Your task to perform on an android device: install app "File Manager" Image 0: 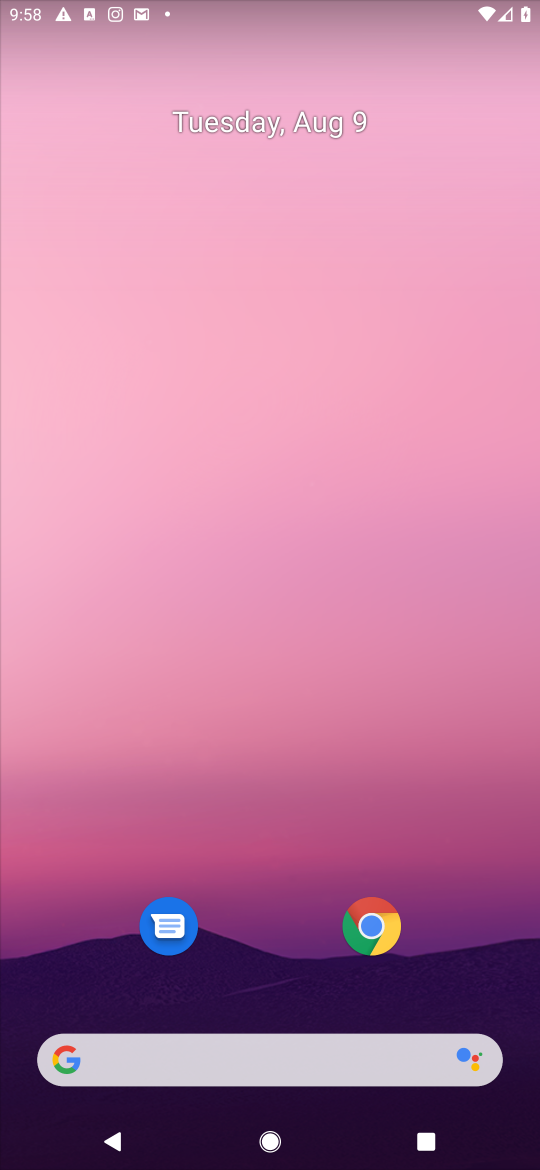
Step 0: drag from (216, 1032) to (292, 420)
Your task to perform on an android device: install app "File Manager" Image 1: 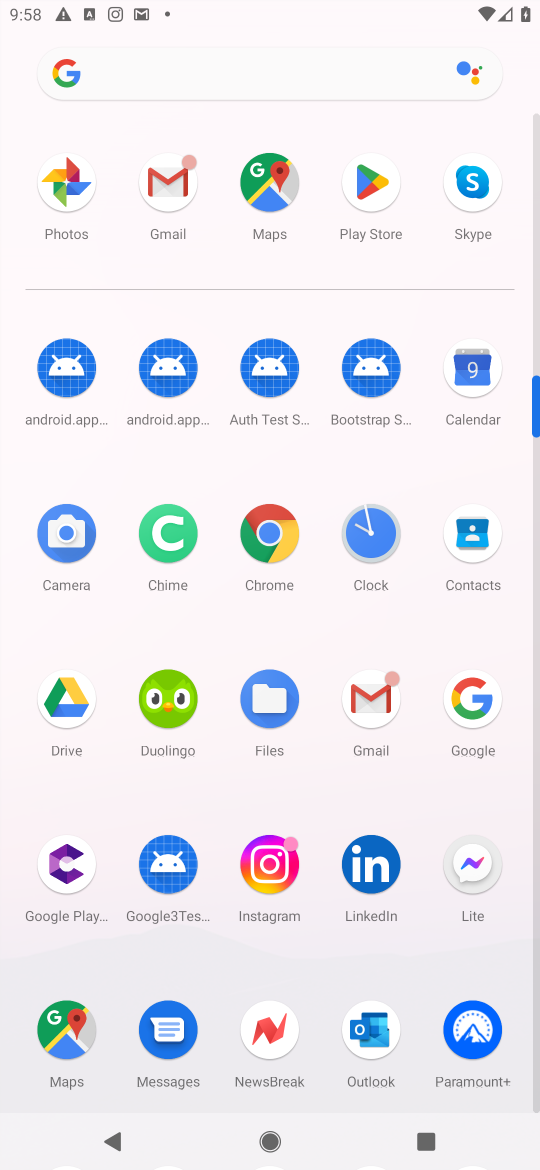
Step 1: click (372, 204)
Your task to perform on an android device: install app "File Manager" Image 2: 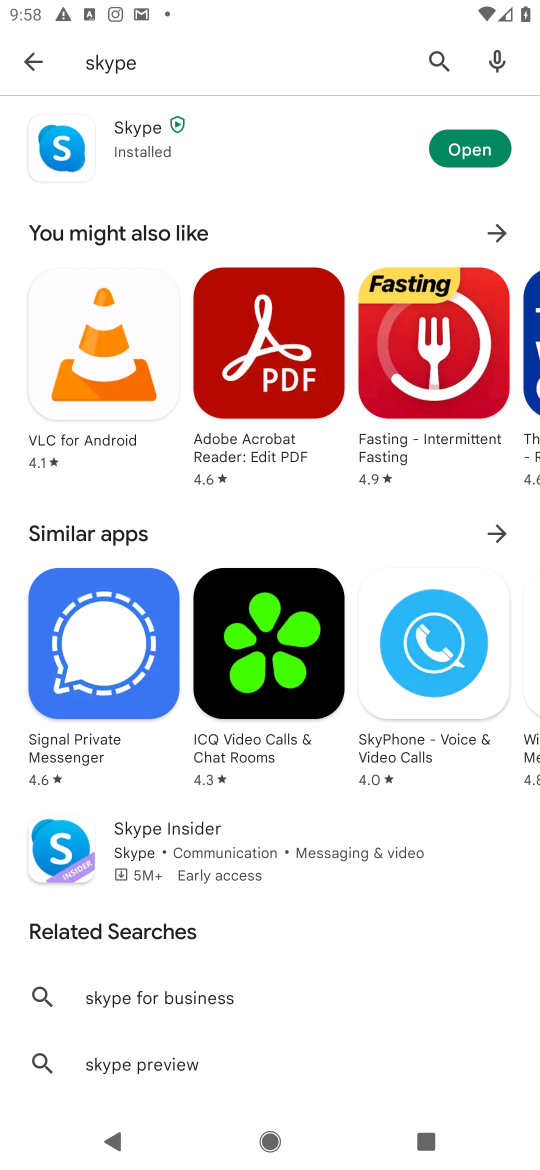
Step 2: click (155, 64)
Your task to perform on an android device: install app "File Manager" Image 3: 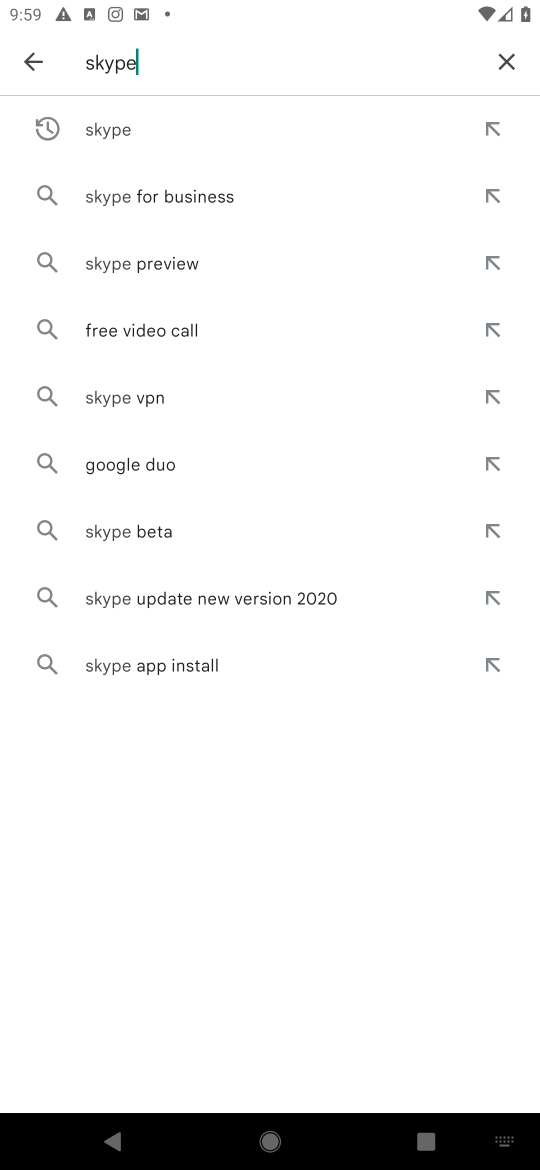
Step 3: click (521, 52)
Your task to perform on an android device: install app "File Manager" Image 4: 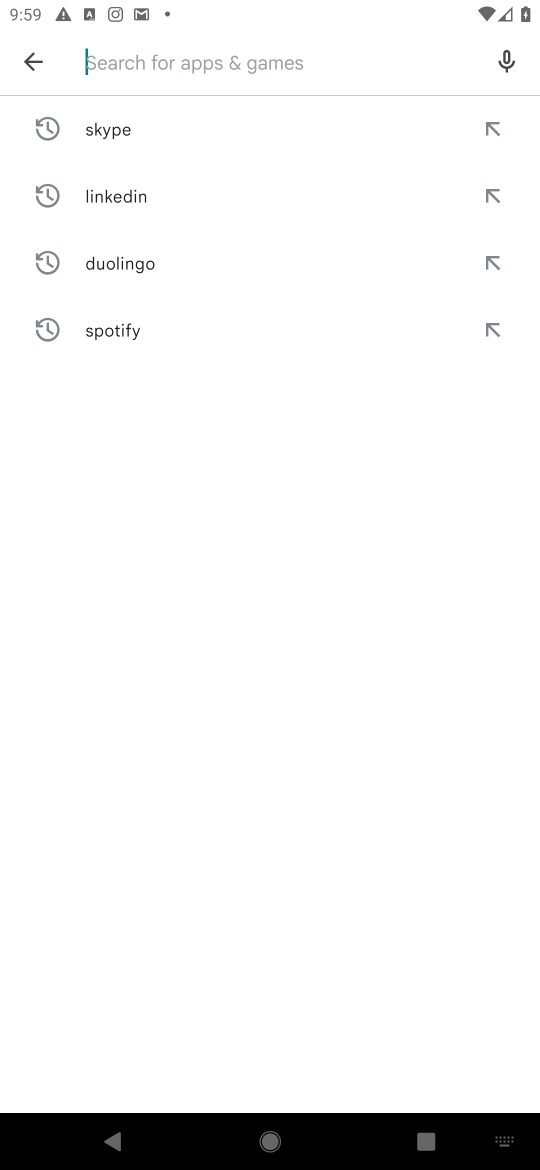
Step 4: type "file manager"
Your task to perform on an android device: install app "File Manager" Image 5: 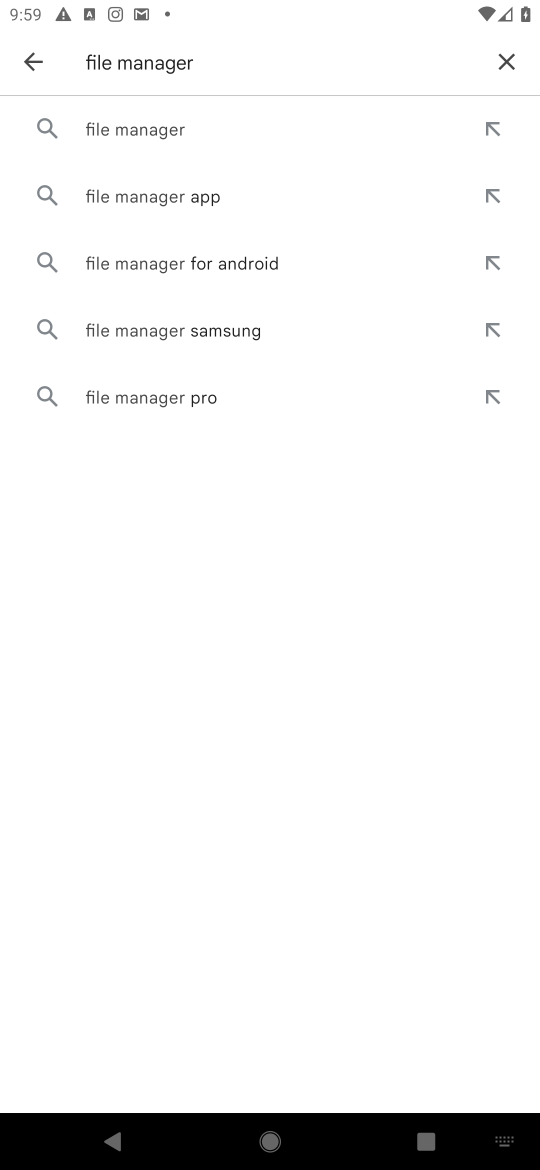
Step 5: click (153, 148)
Your task to perform on an android device: install app "File Manager" Image 6: 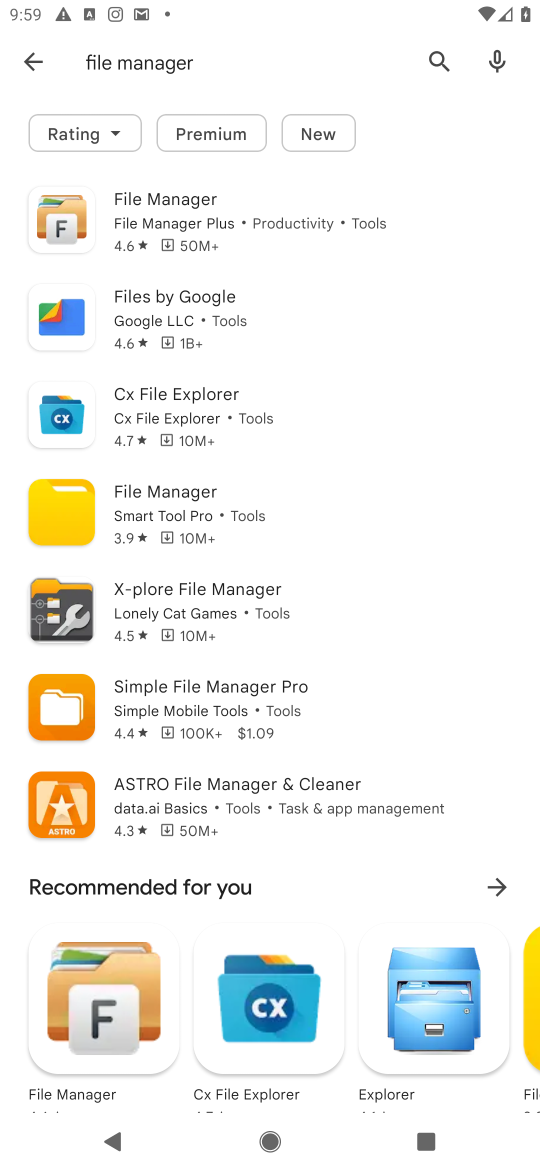
Step 6: click (217, 243)
Your task to perform on an android device: install app "File Manager" Image 7: 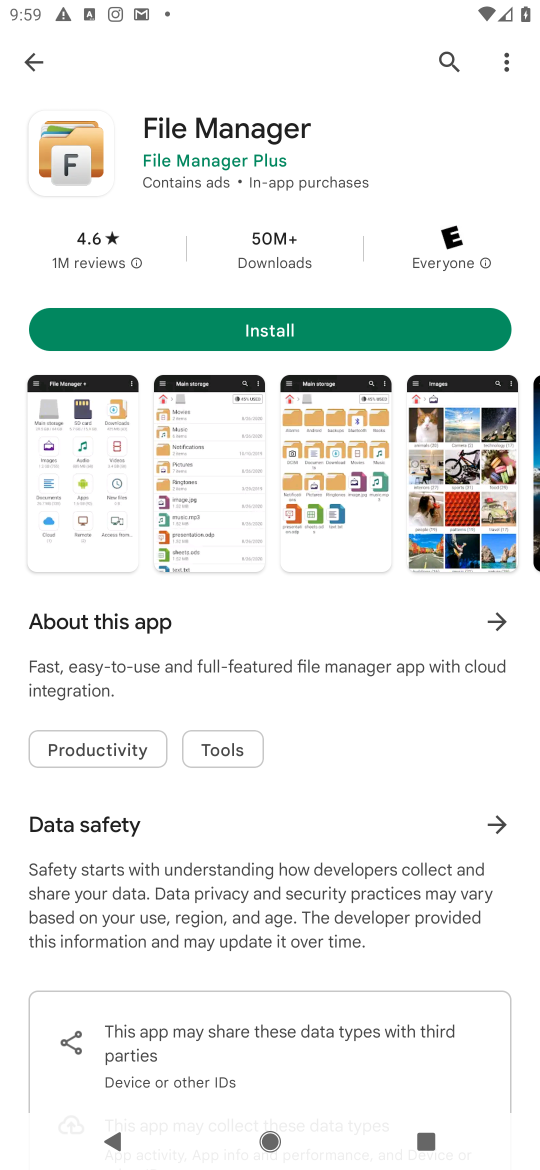
Step 7: click (264, 328)
Your task to perform on an android device: install app "File Manager" Image 8: 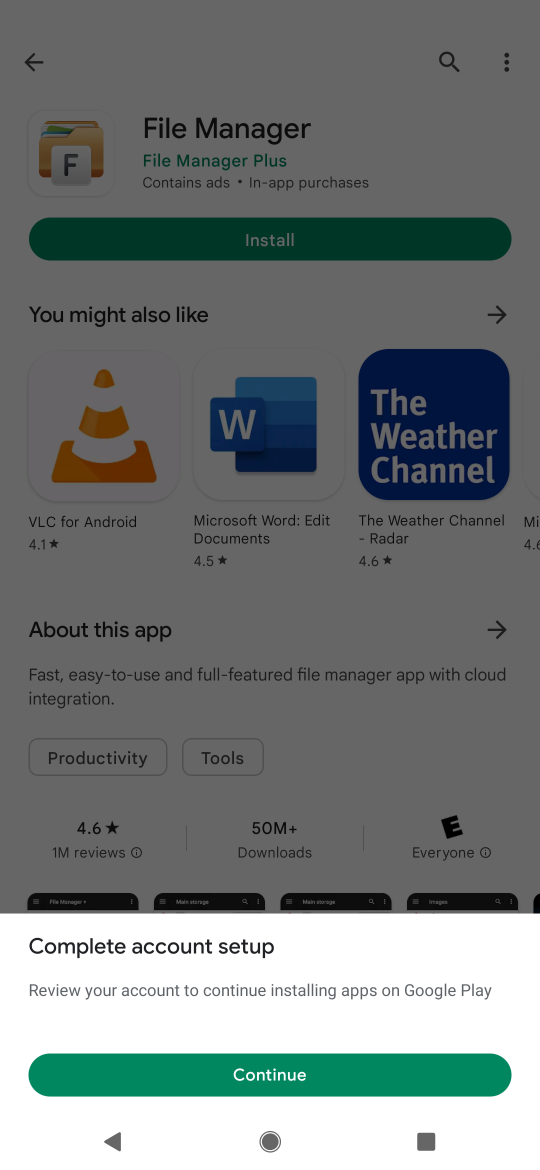
Step 8: click (251, 1080)
Your task to perform on an android device: install app "File Manager" Image 9: 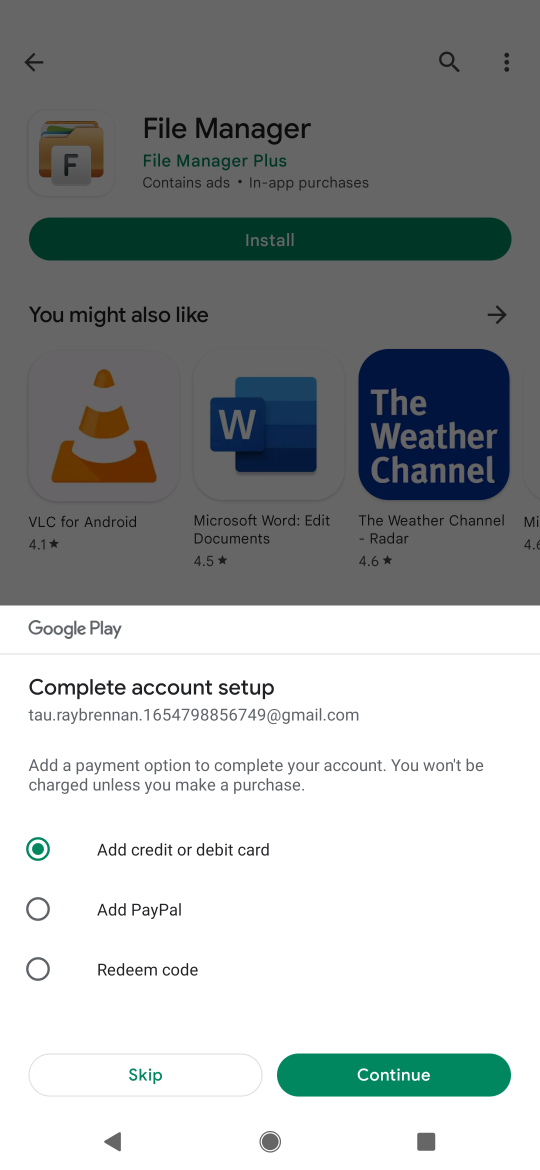
Step 9: click (132, 1080)
Your task to perform on an android device: install app "File Manager" Image 10: 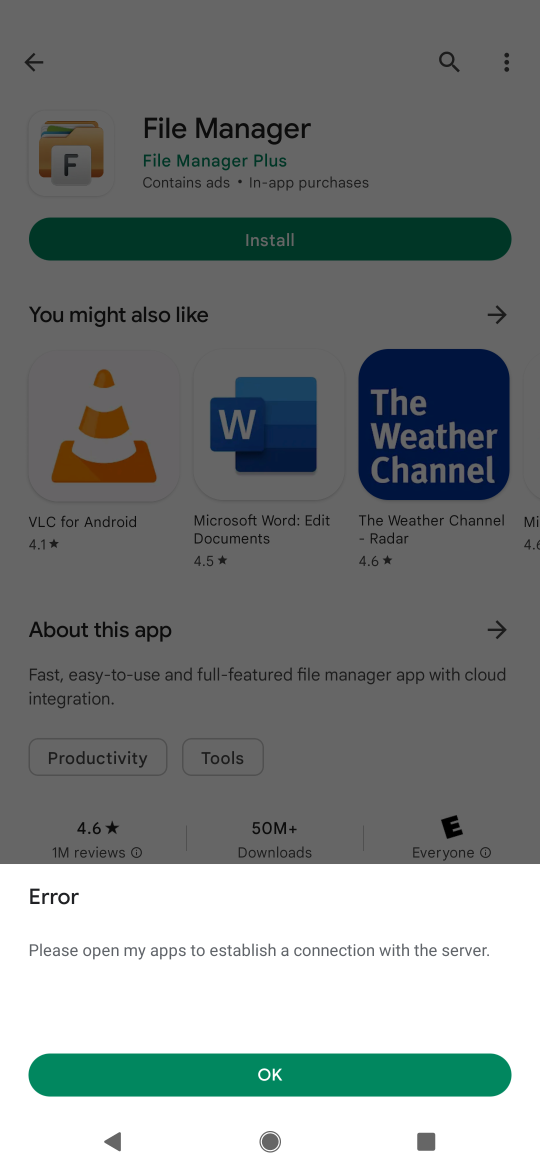
Step 10: click (159, 1075)
Your task to perform on an android device: install app "File Manager" Image 11: 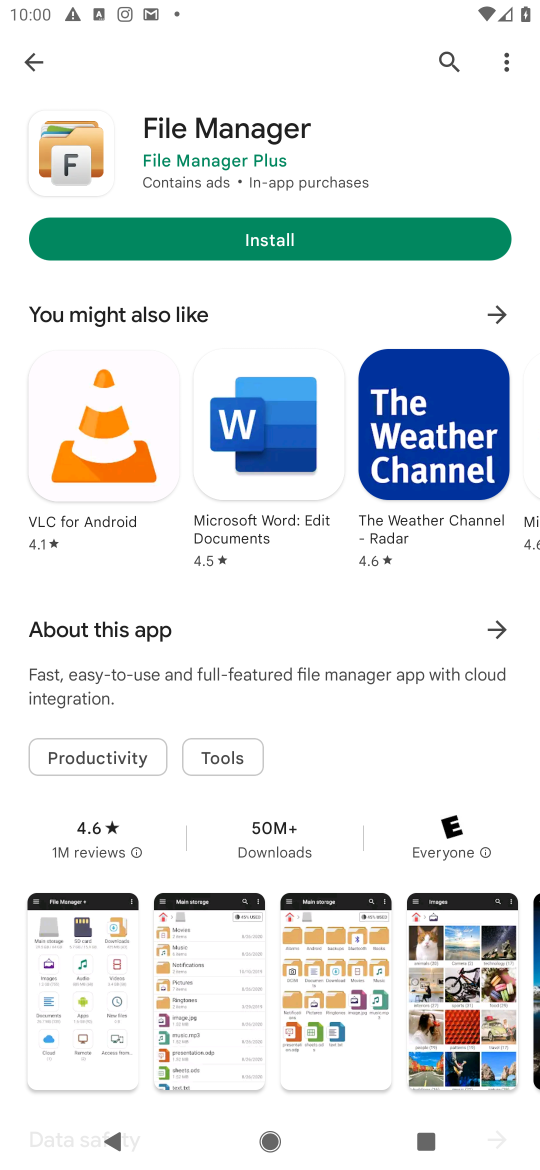
Step 11: click (198, 244)
Your task to perform on an android device: install app "File Manager" Image 12: 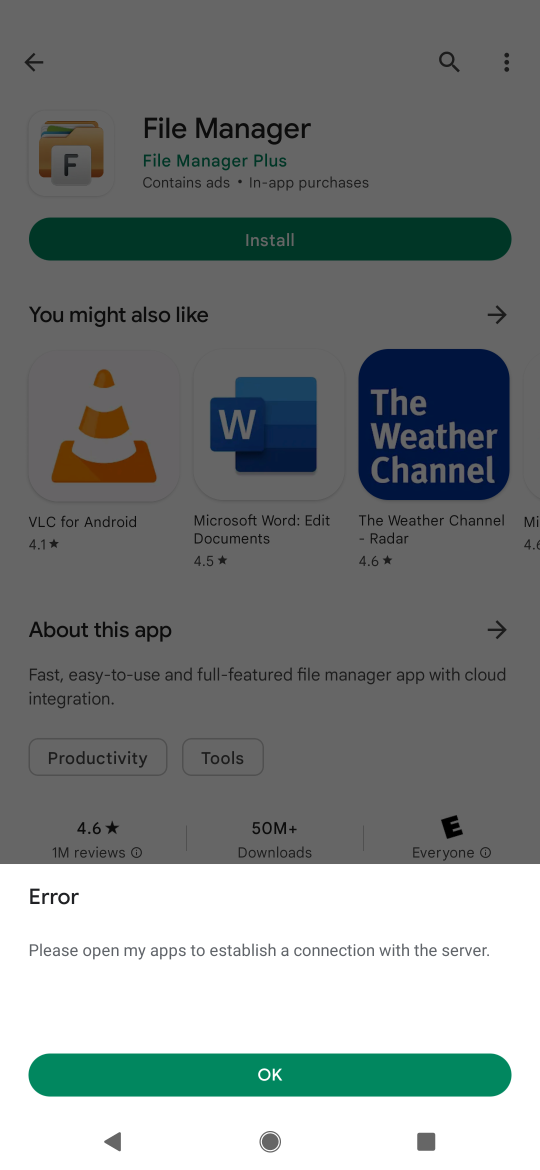
Step 12: click (326, 1058)
Your task to perform on an android device: install app "File Manager" Image 13: 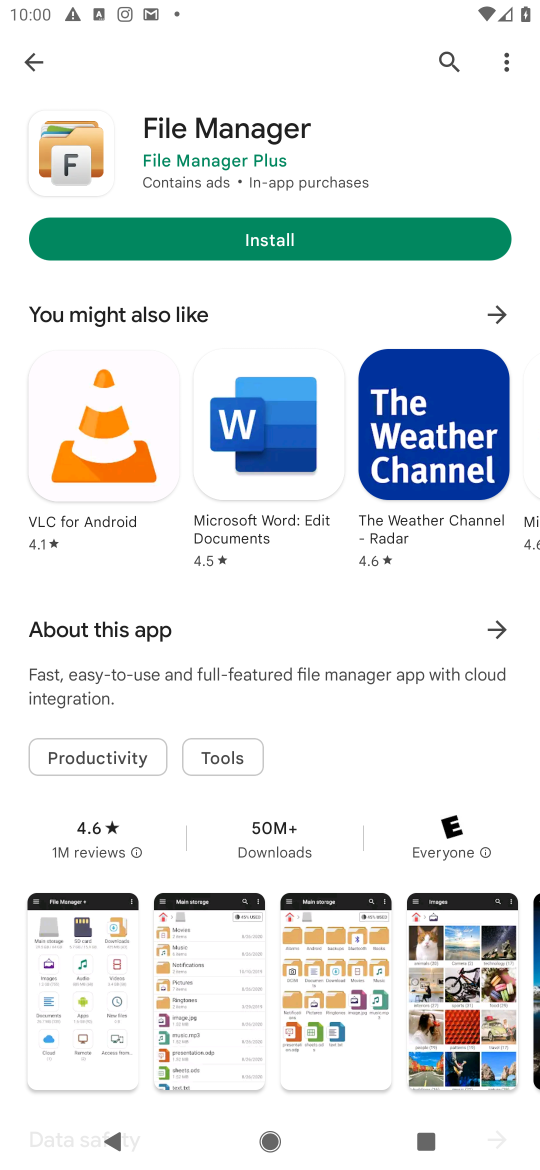
Step 13: task complete